Your task to perform on an android device: add a contact in the contacts app Image 0: 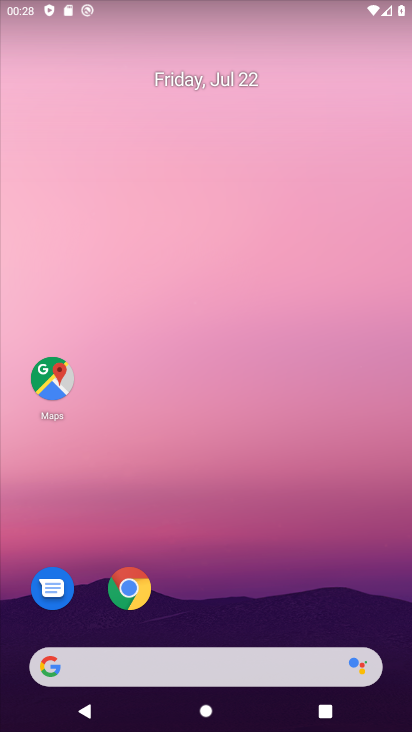
Step 0: drag from (210, 509) to (287, 72)
Your task to perform on an android device: add a contact in the contacts app Image 1: 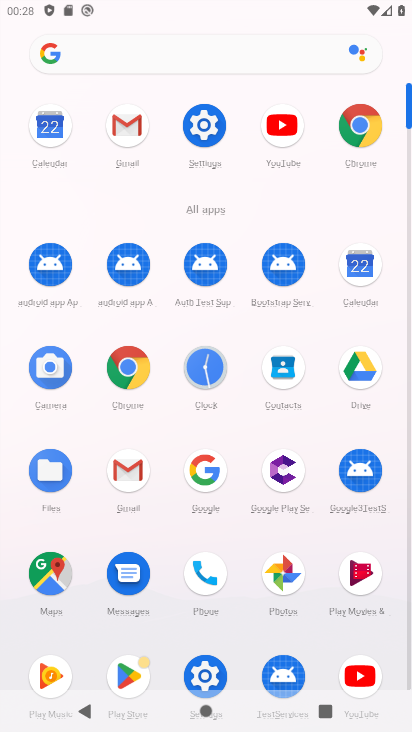
Step 1: click (283, 369)
Your task to perform on an android device: add a contact in the contacts app Image 2: 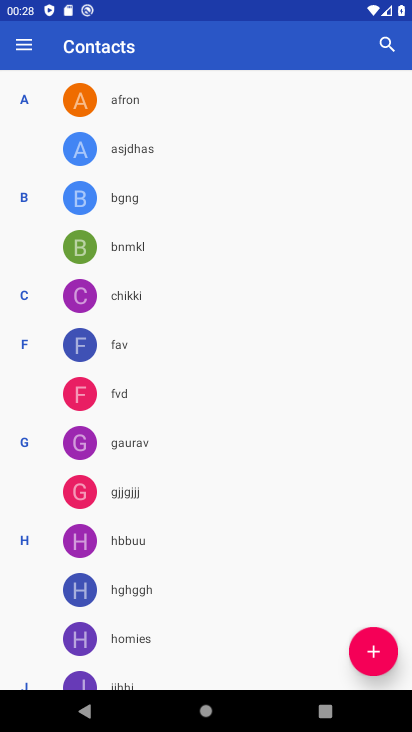
Step 2: click (359, 652)
Your task to perform on an android device: add a contact in the contacts app Image 3: 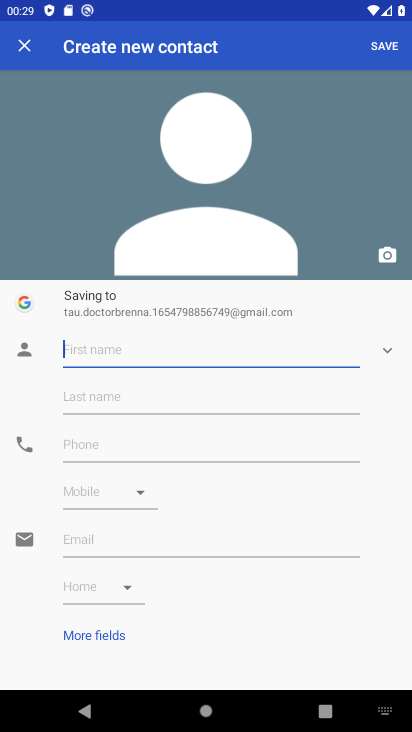
Step 3: type "zghh"
Your task to perform on an android device: add a contact in the contacts app Image 4: 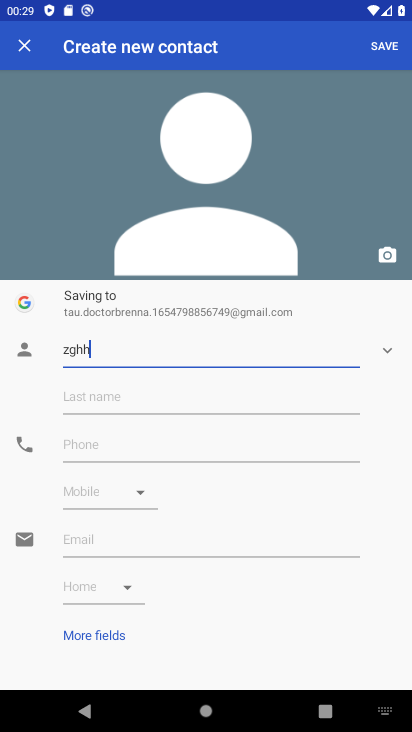
Step 4: click (83, 453)
Your task to perform on an android device: add a contact in the contacts app Image 5: 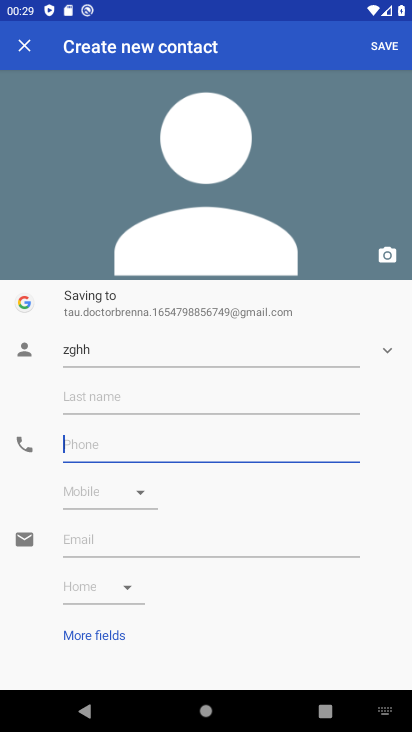
Step 5: type "676"
Your task to perform on an android device: add a contact in the contacts app Image 6: 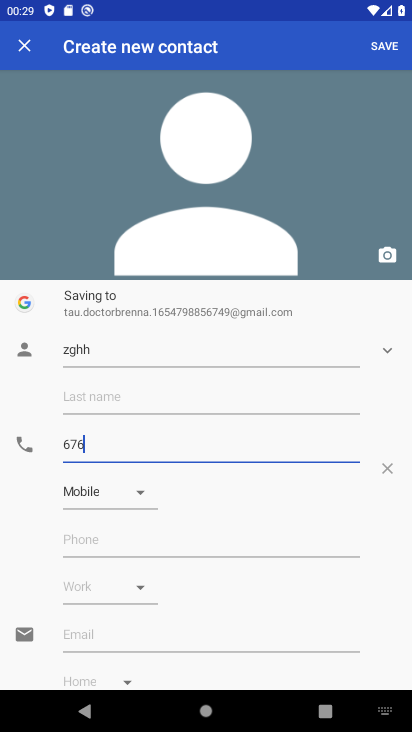
Step 6: click (389, 40)
Your task to perform on an android device: add a contact in the contacts app Image 7: 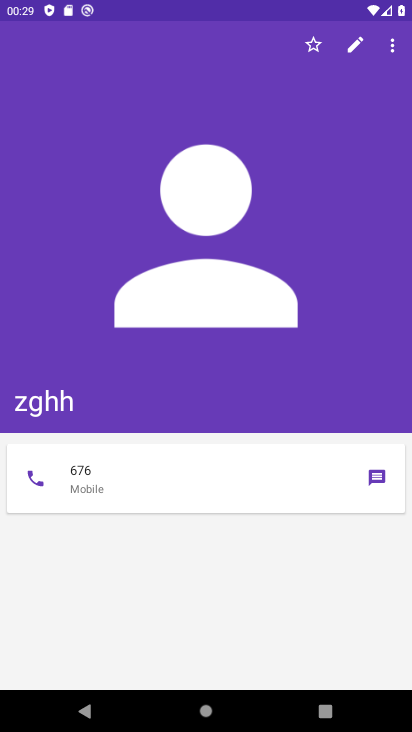
Step 7: task complete